Your task to perform on an android device: Add "acer predator" to the cart on walmart, then select checkout. Image 0: 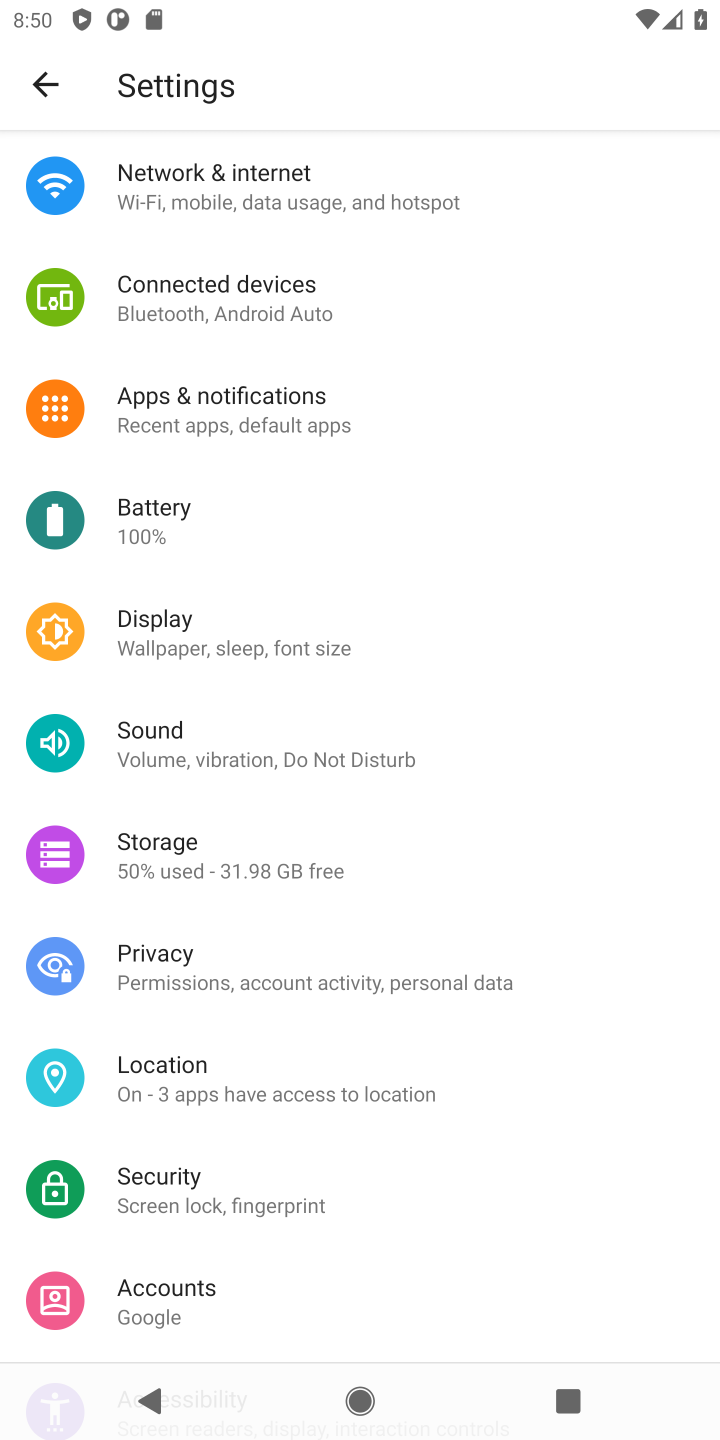
Step 0: press home button
Your task to perform on an android device: Add "acer predator" to the cart on walmart, then select checkout. Image 1: 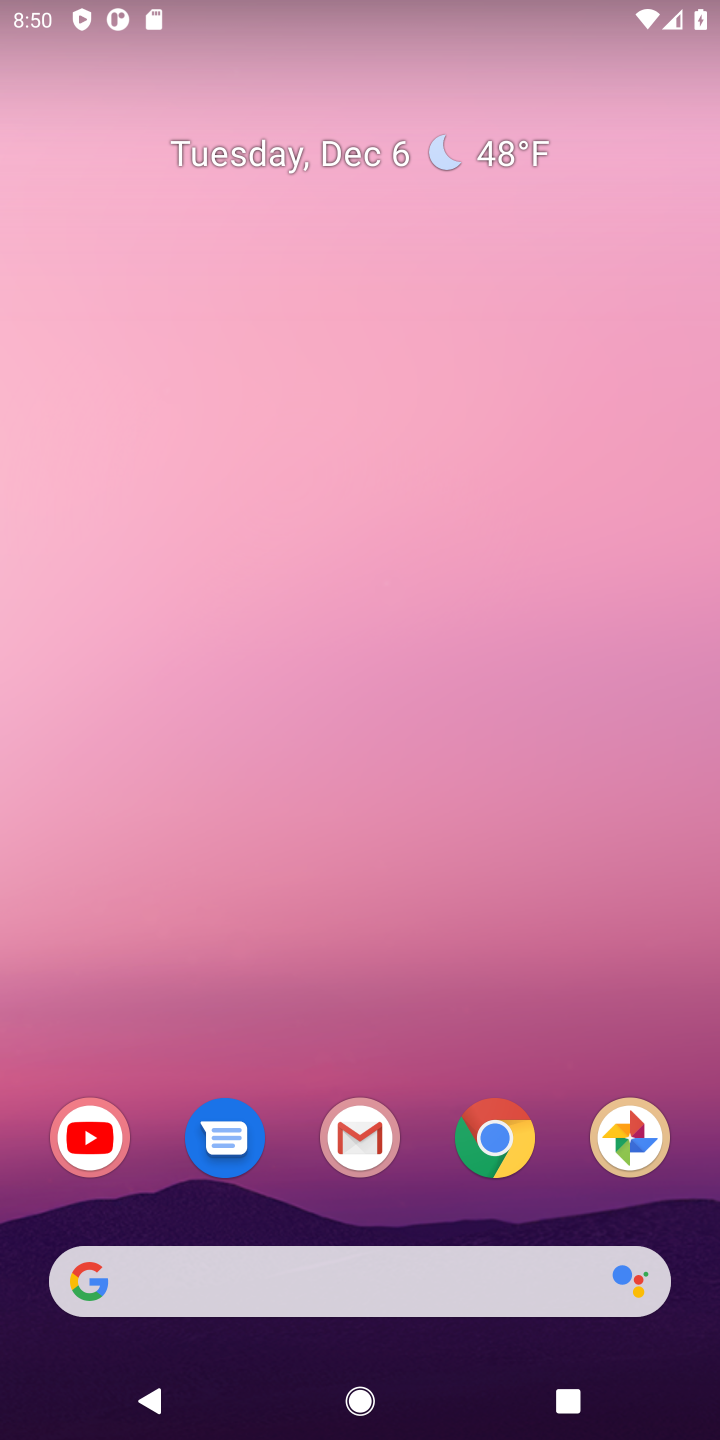
Step 1: click (493, 1136)
Your task to perform on an android device: Add "acer predator" to the cart on walmart, then select checkout. Image 2: 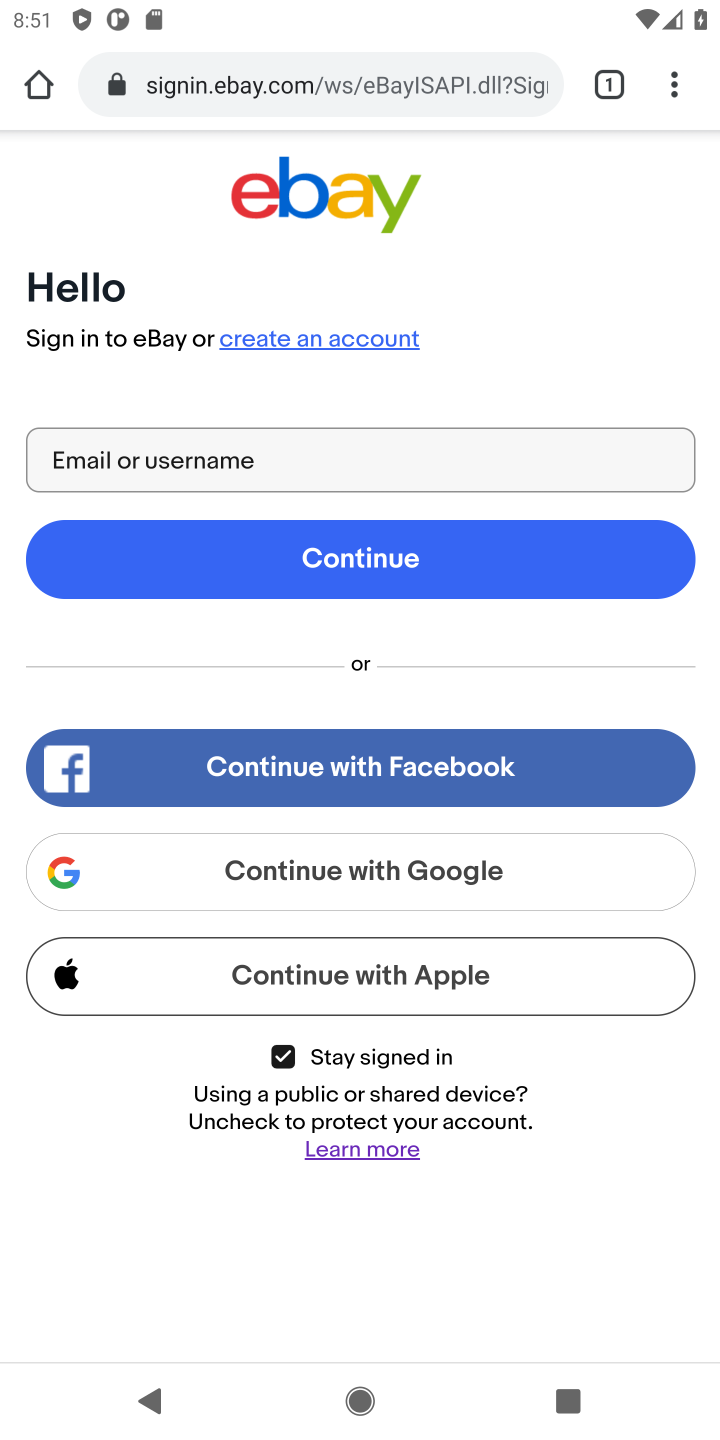
Step 2: click (296, 71)
Your task to perform on an android device: Add "acer predator" to the cart on walmart, then select checkout. Image 3: 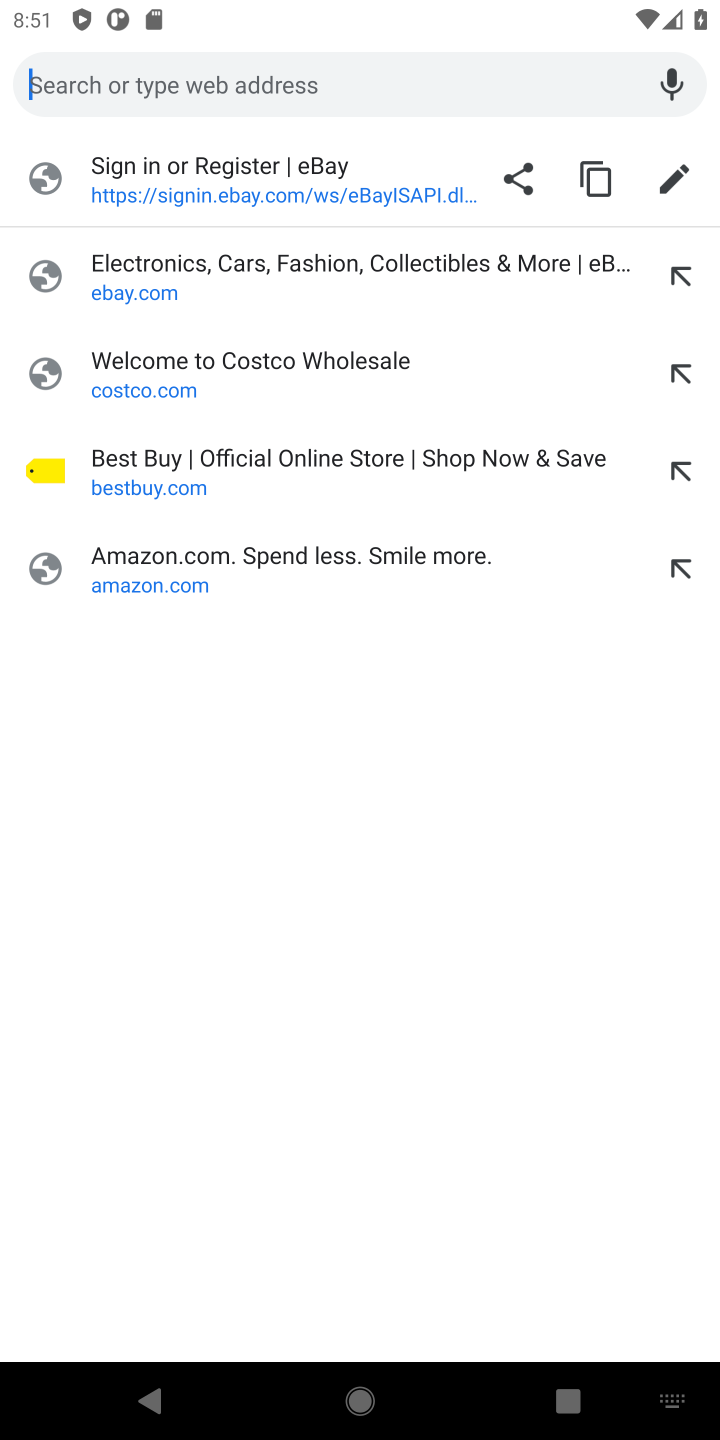
Step 3: type "walmart.com"
Your task to perform on an android device: Add "acer predator" to the cart on walmart, then select checkout. Image 4: 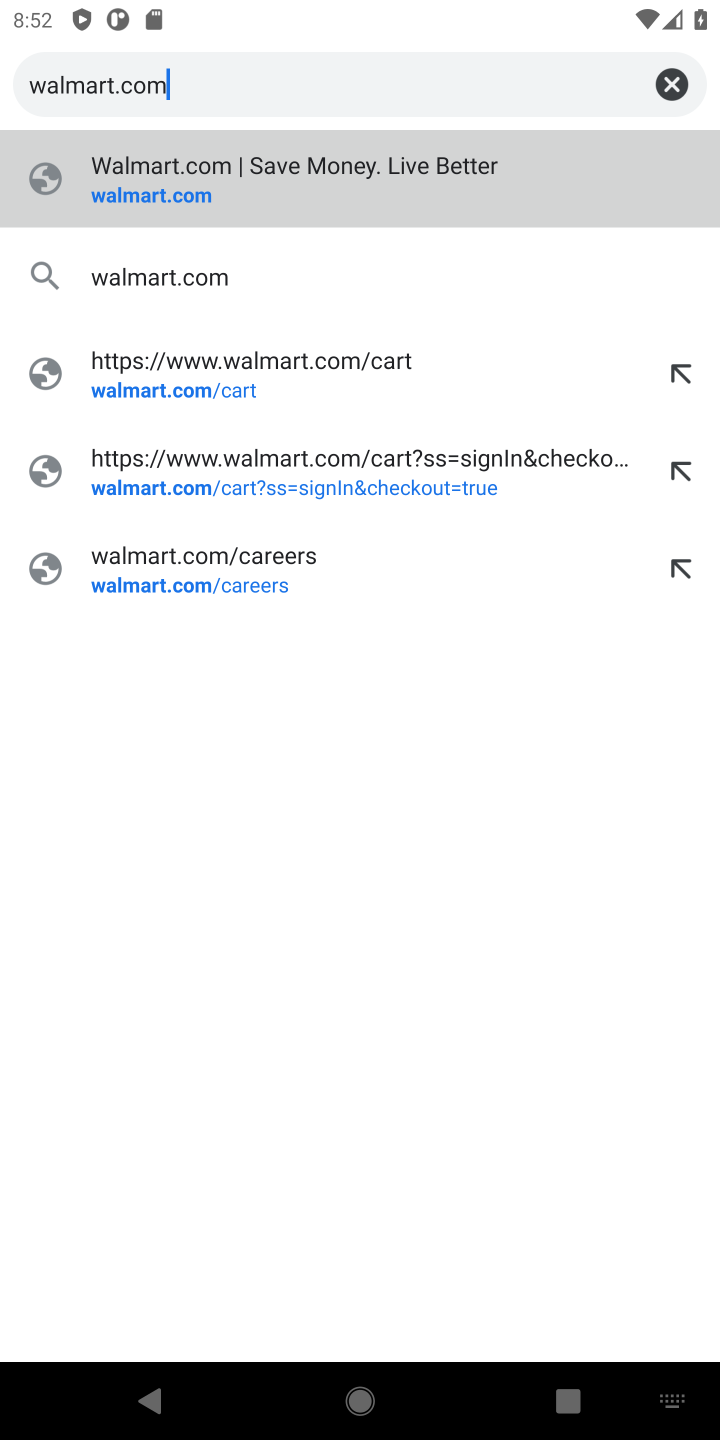
Step 4: click (142, 188)
Your task to perform on an android device: Add "acer predator" to the cart on walmart, then select checkout. Image 5: 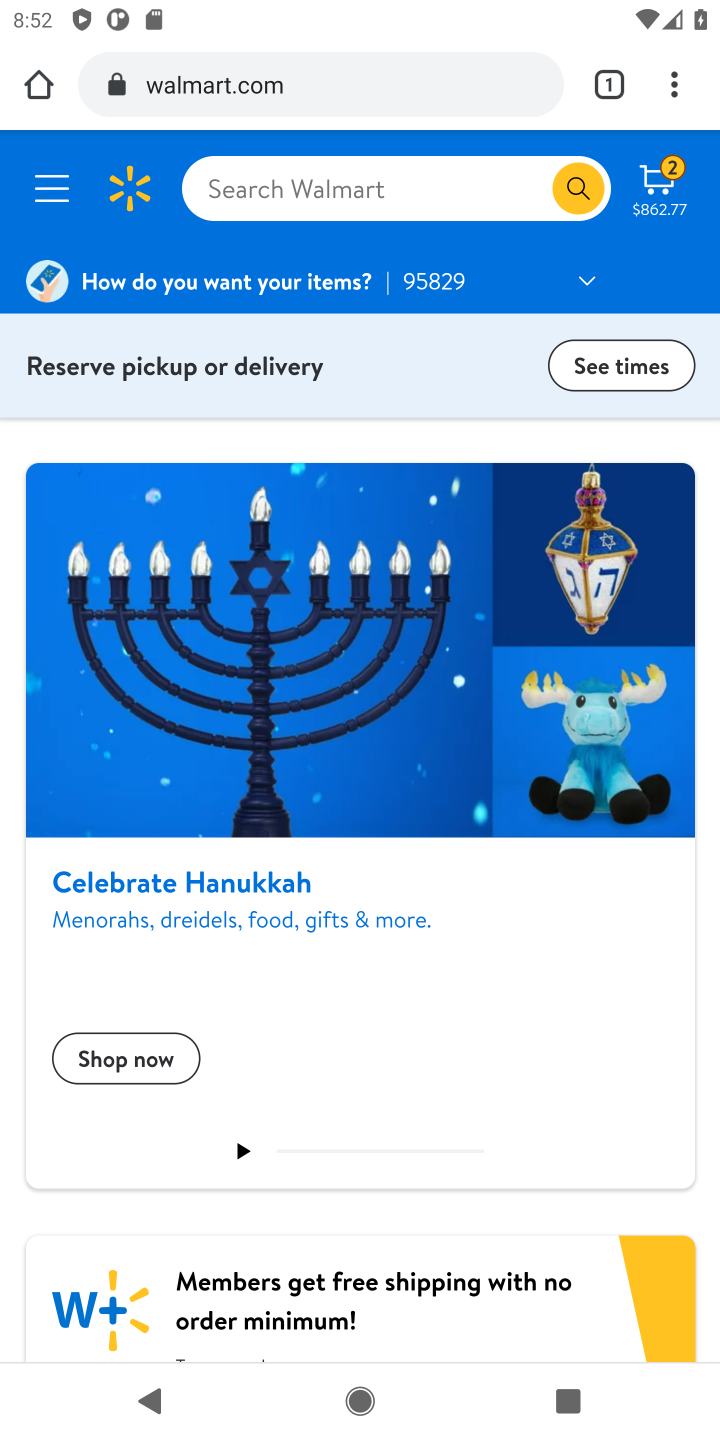
Step 5: click (250, 200)
Your task to perform on an android device: Add "acer predator" to the cart on walmart, then select checkout. Image 6: 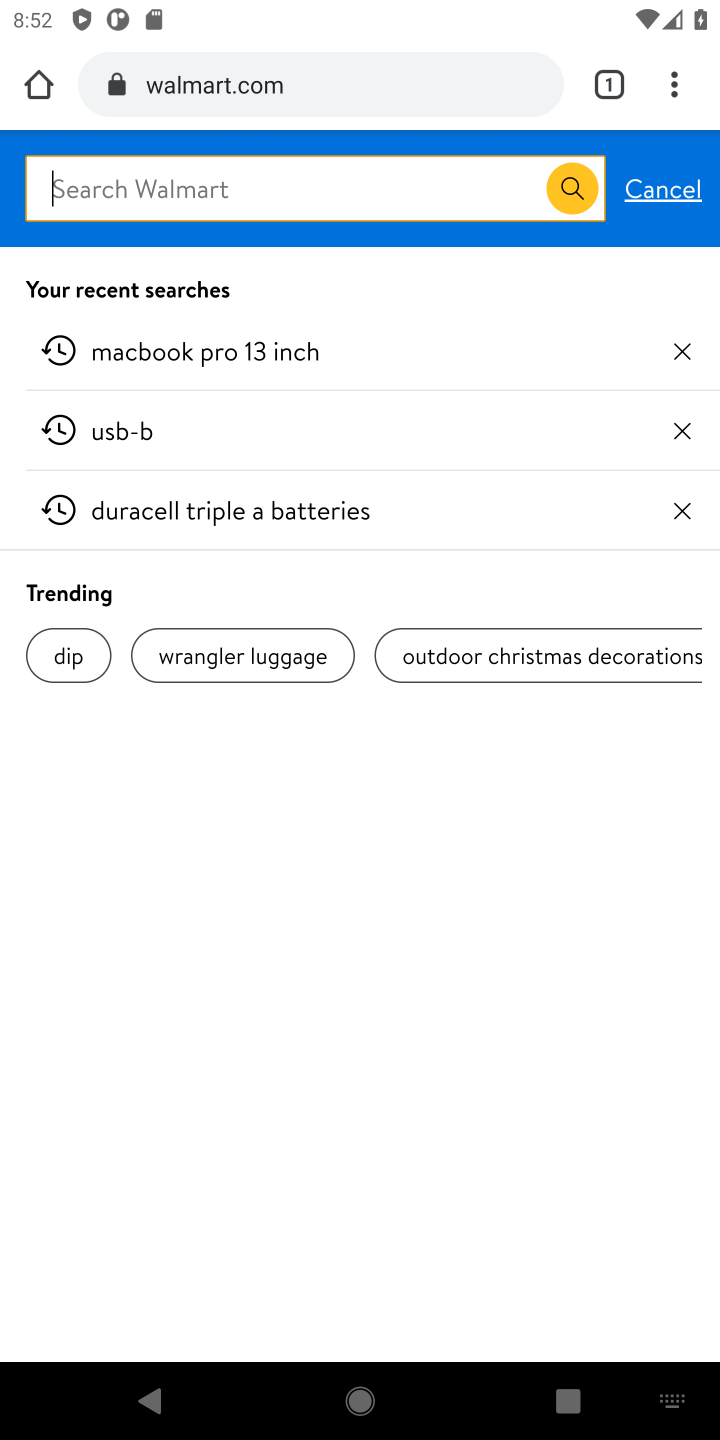
Step 6: type "acer predator"
Your task to perform on an android device: Add "acer predator" to the cart on walmart, then select checkout. Image 7: 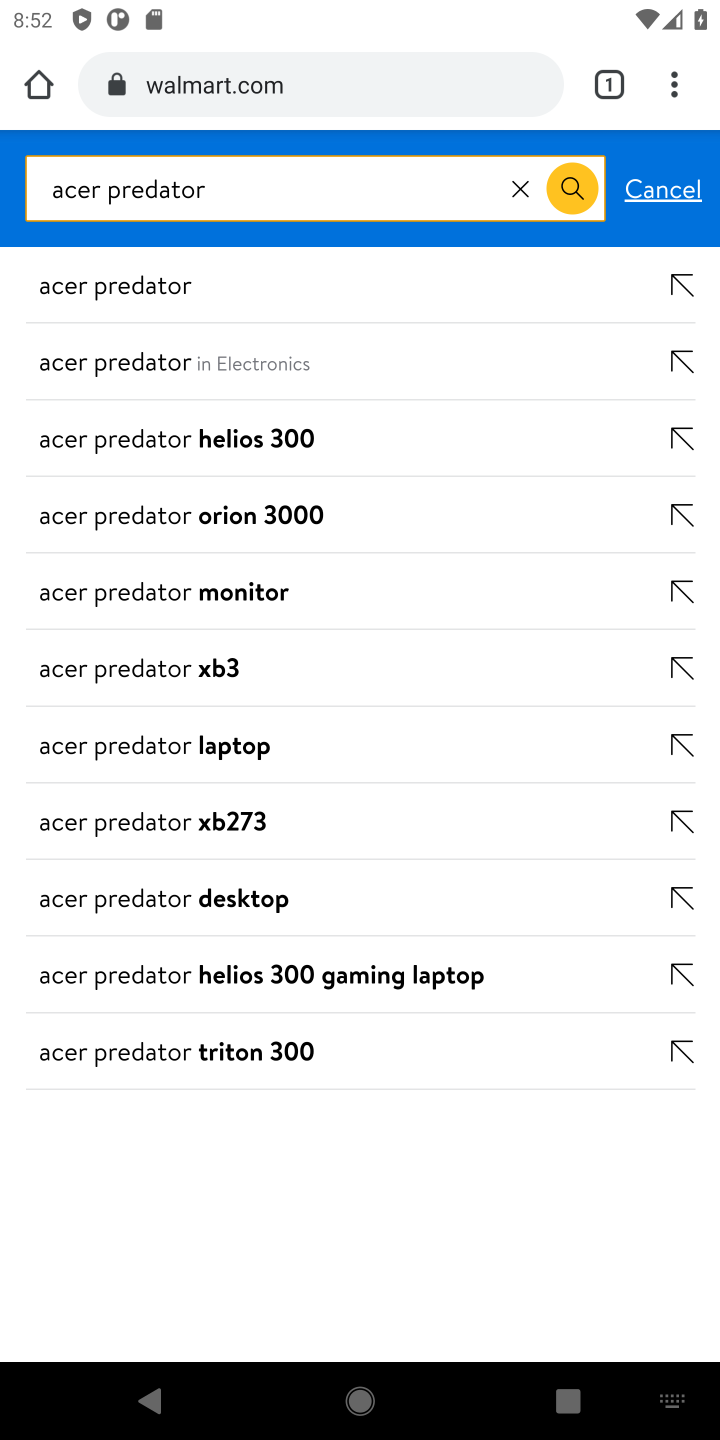
Step 7: click (141, 291)
Your task to perform on an android device: Add "acer predator" to the cart on walmart, then select checkout. Image 8: 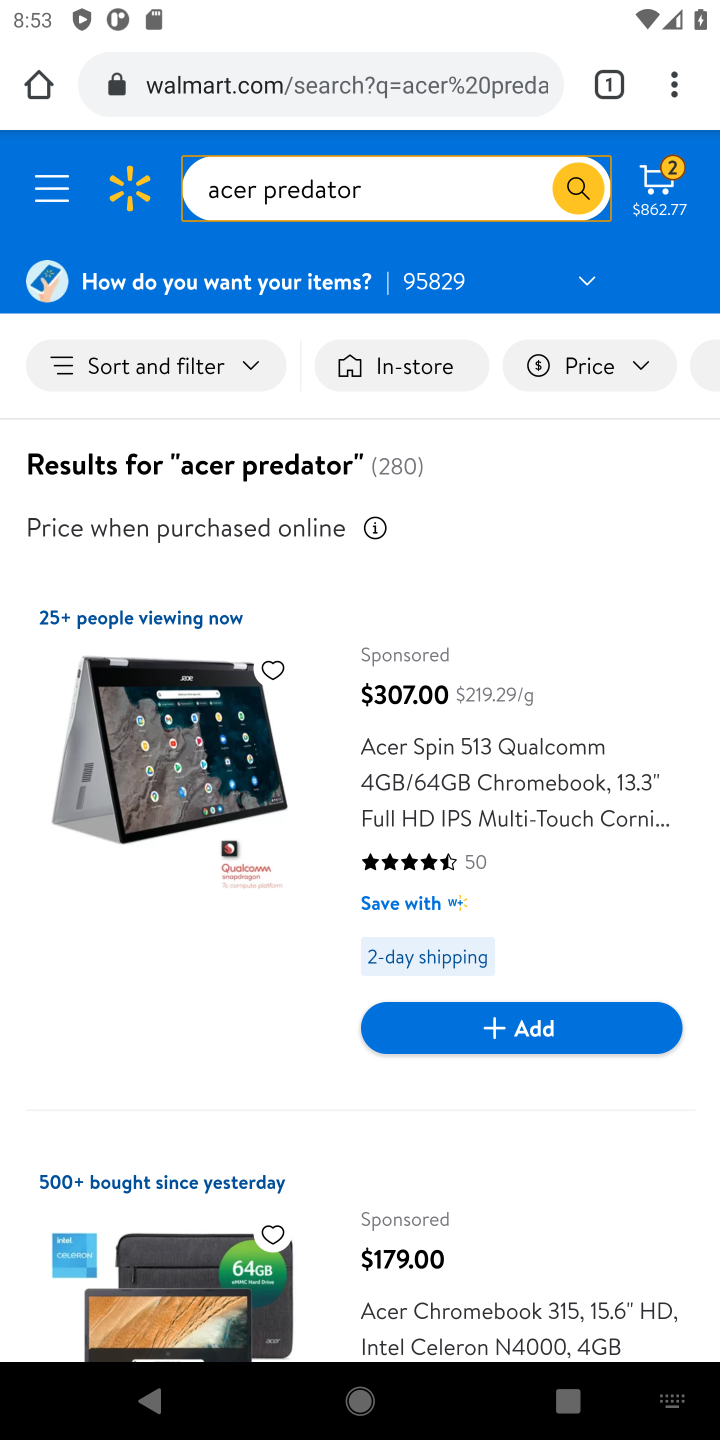
Step 8: drag from (270, 955) to (174, 491)
Your task to perform on an android device: Add "acer predator" to the cart on walmart, then select checkout. Image 9: 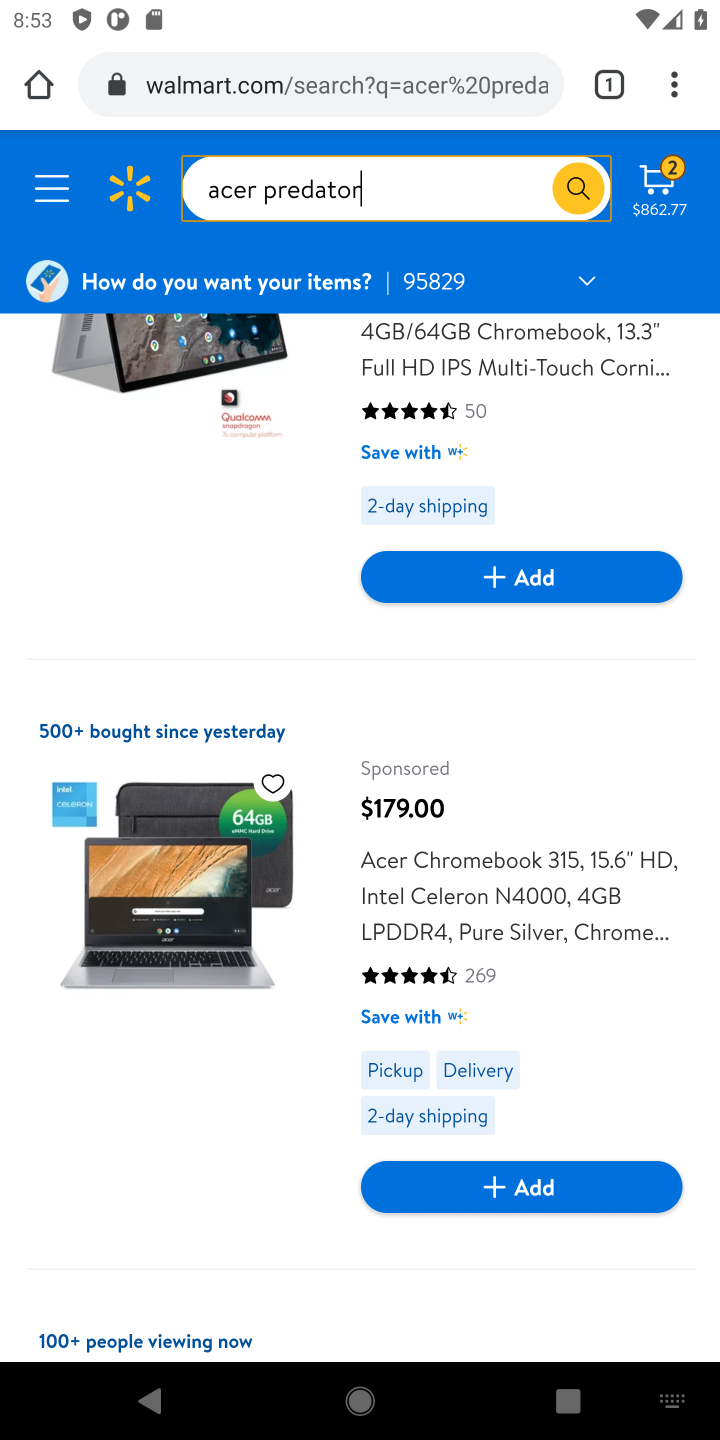
Step 9: drag from (196, 1003) to (229, 404)
Your task to perform on an android device: Add "acer predator" to the cart on walmart, then select checkout. Image 10: 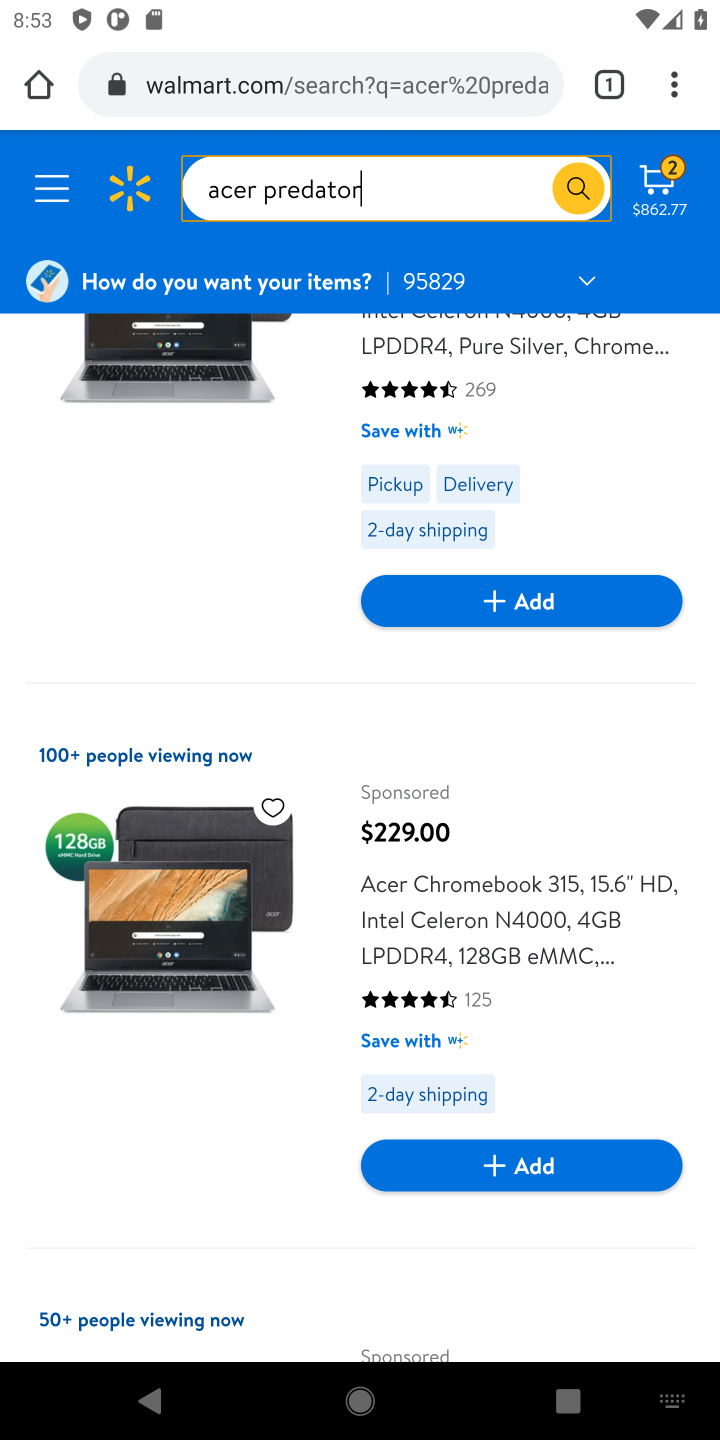
Step 10: drag from (236, 753) to (217, 419)
Your task to perform on an android device: Add "acer predator" to the cart on walmart, then select checkout. Image 11: 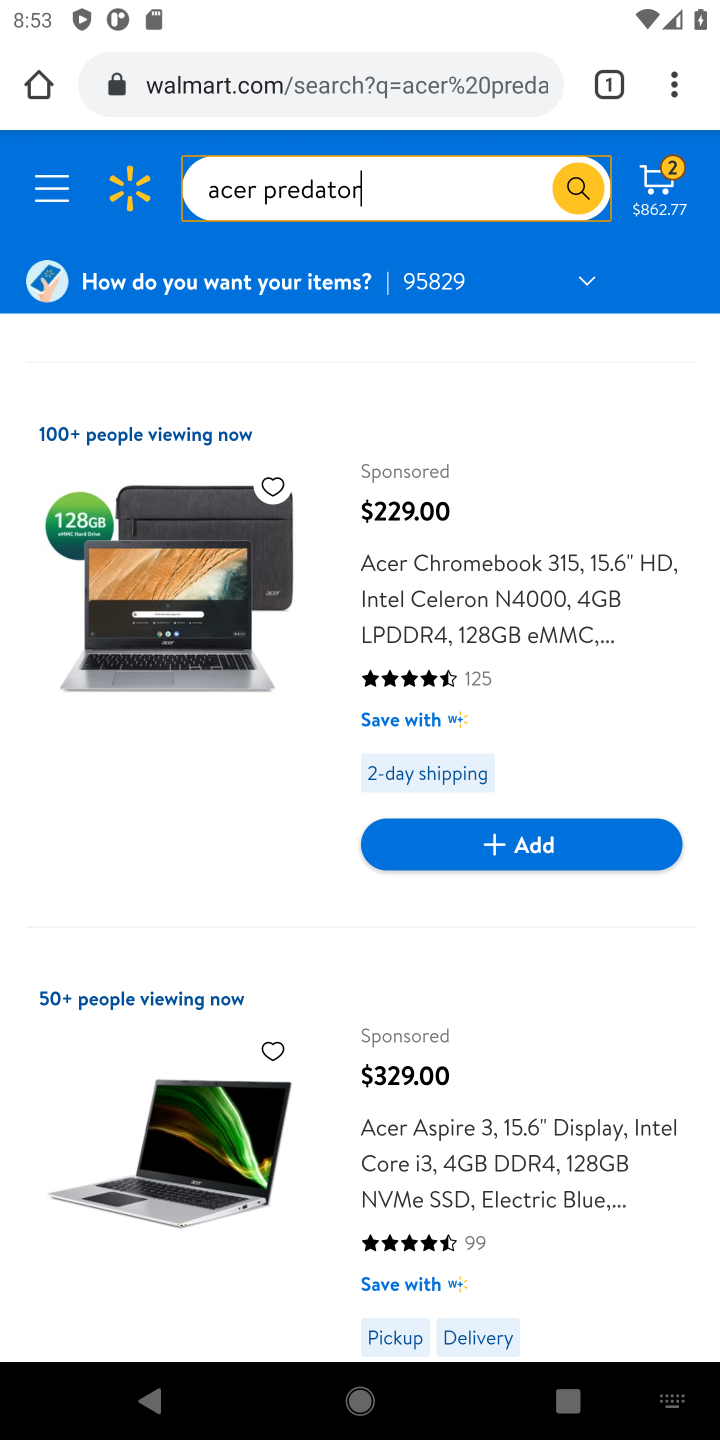
Step 11: drag from (224, 756) to (213, 457)
Your task to perform on an android device: Add "acer predator" to the cart on walmart, then select checkout. Image 12: 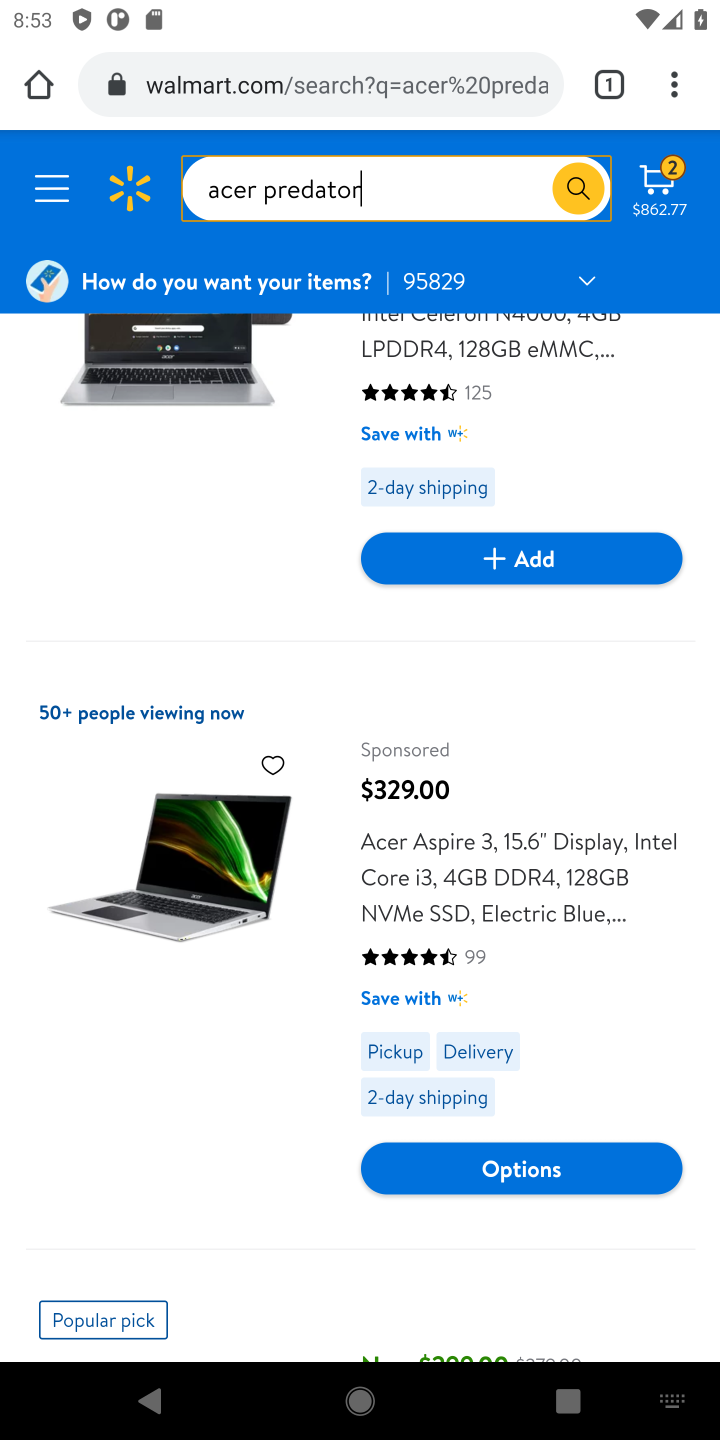
Step 12: drag from (198, 968) to (206, 481)
Your task to perform on an android device: Add "acer predator" to the cart on walmart, then select checkout. Image 13: 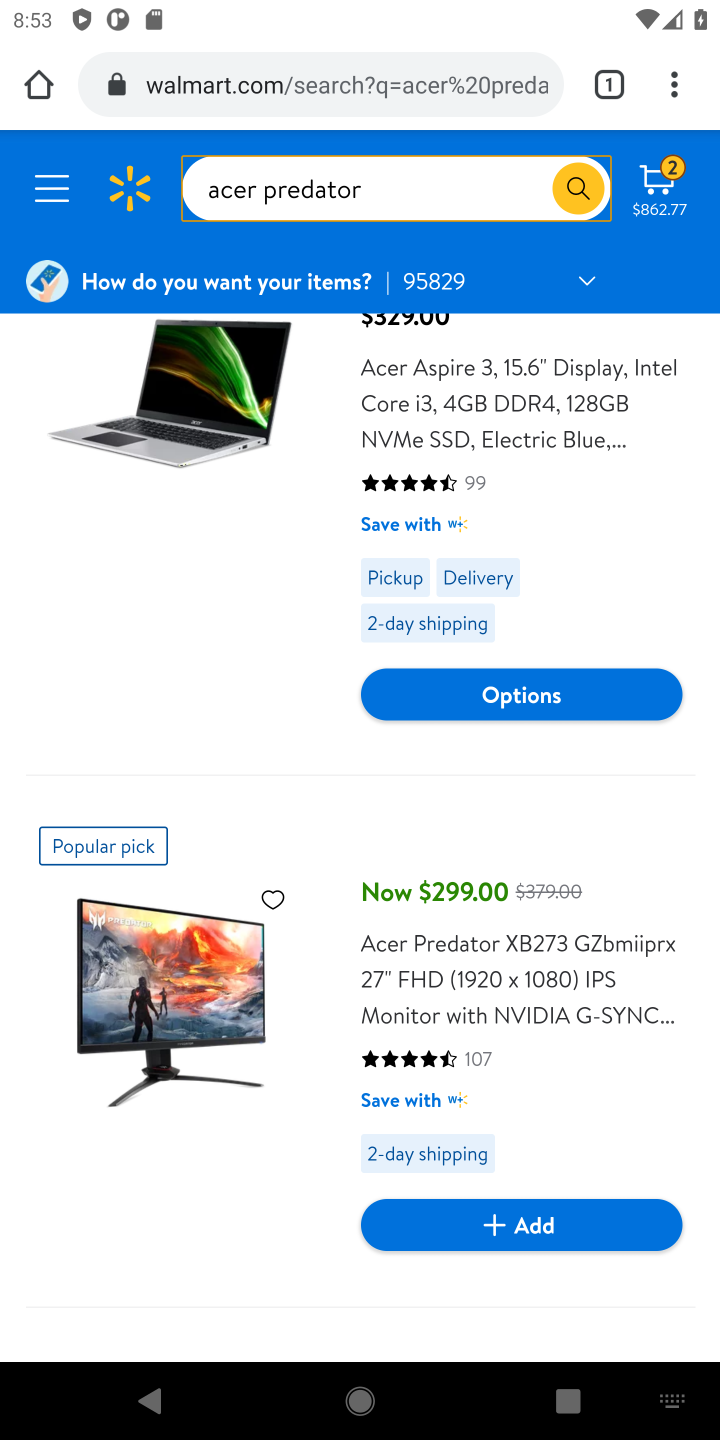
Step 13: drag from (175, 728) to (189, 440)
Your task to perform on an android device: Add "acer predator" to the cart on walmart, then select checkout. Image 14: 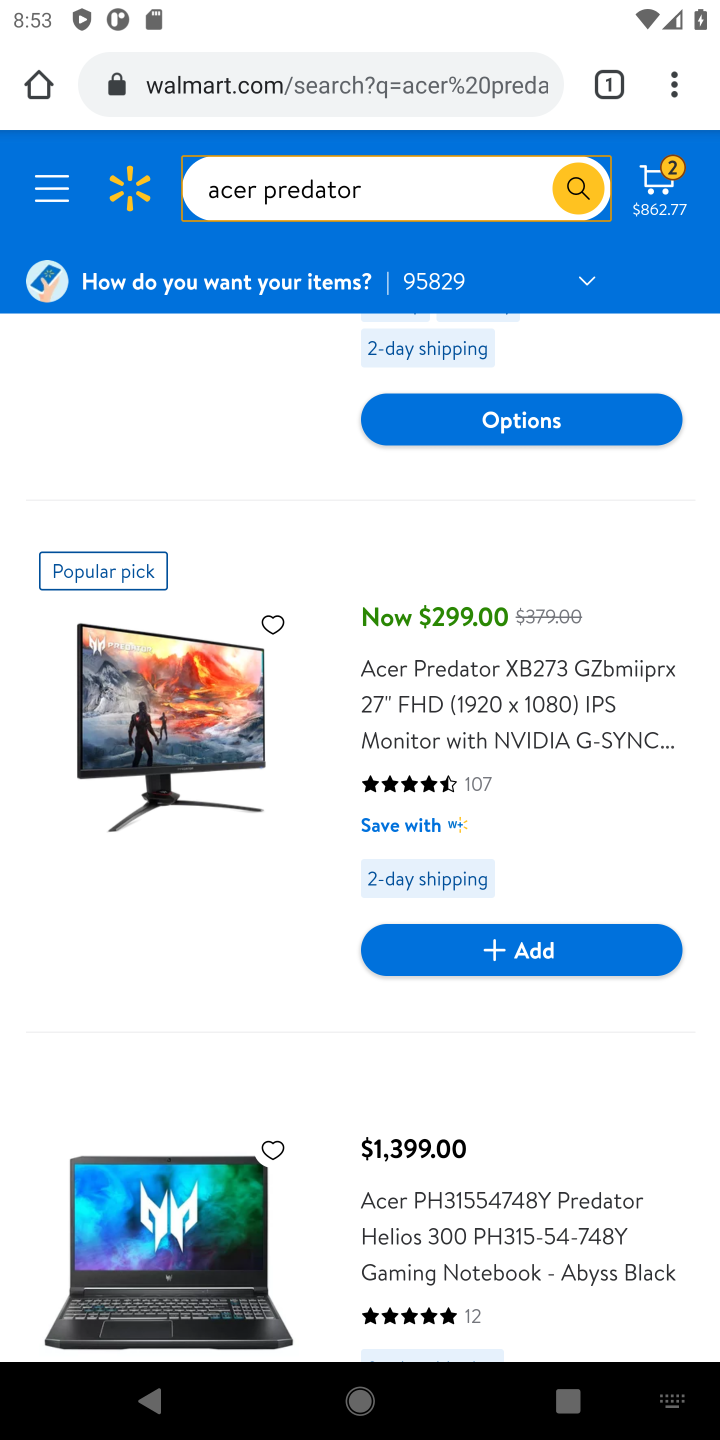
Step 14: click (524, 950)
Your task to perform on an android device: Add "acer predator" to the cart on walmart, then select checkout. Image 15: 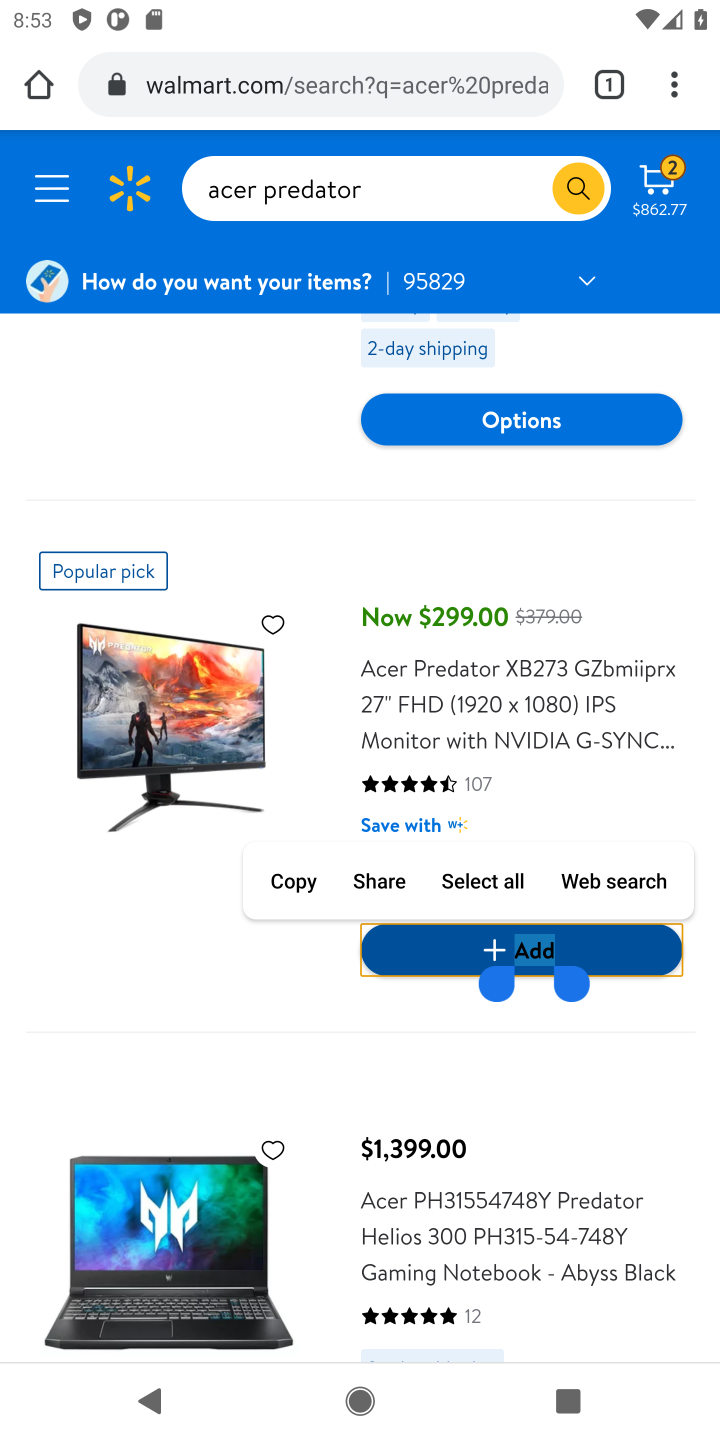
Step 15: click (494, 959)
Your task to perform on an android device: Add "acer predator" to the cart on walmart, then select checkout. Image 16: 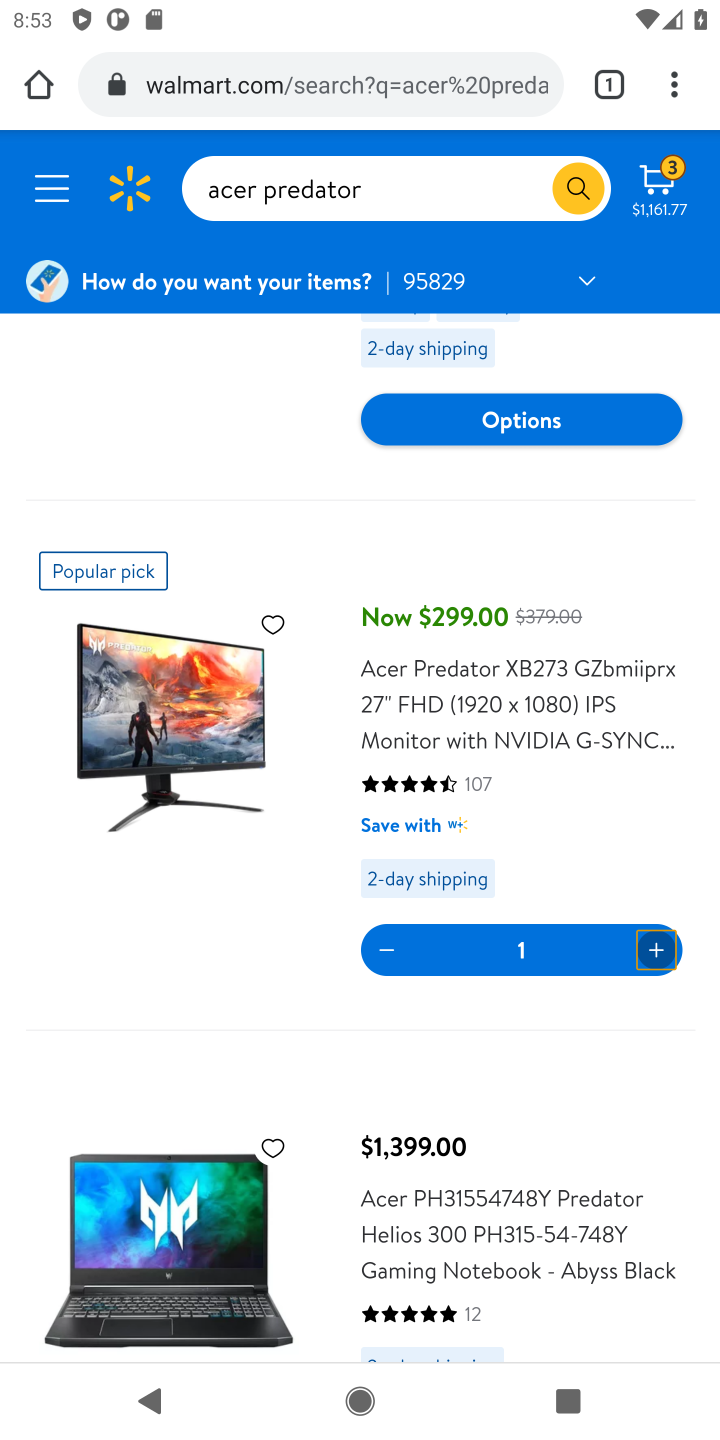
Step 16: click (669, 202)
Your task to perform on an android device: Add "acer predator" to the cart on walmart, then select checkout. Image 17: 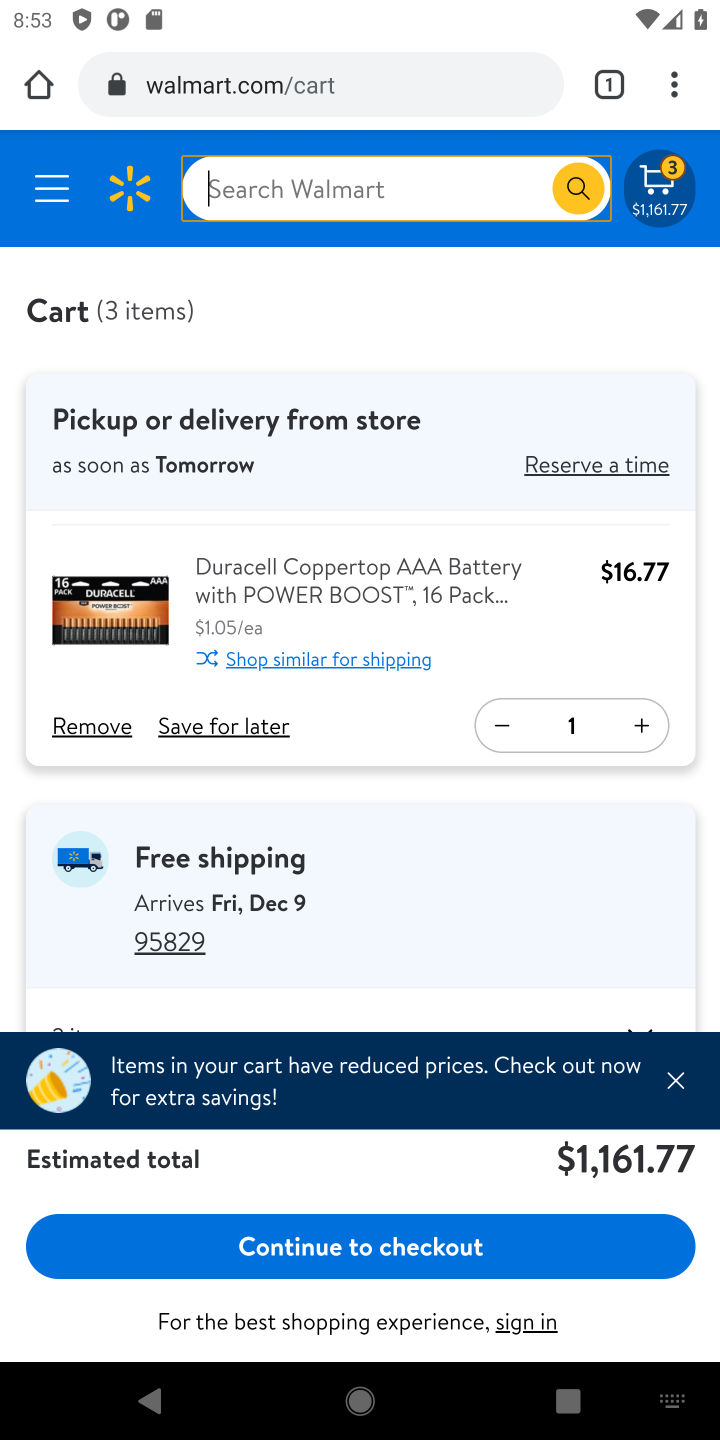
Step 17: click (371, 1235)
Your task to perform on an android device: Add "acer predator" to the cart on walmart, then select checkout. Image 18: 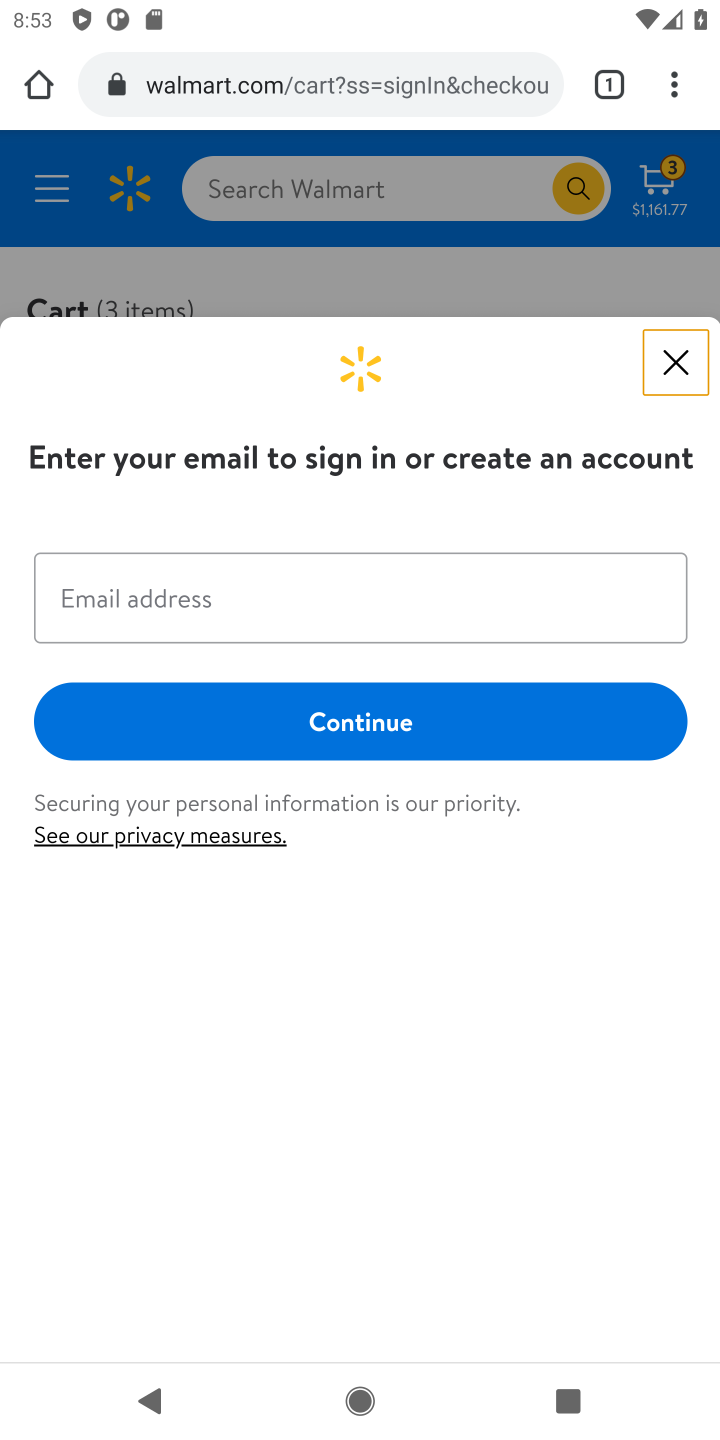
Step 18: task complete